Your task to perform on an android device: allow cookies in the chrome app Image 0: 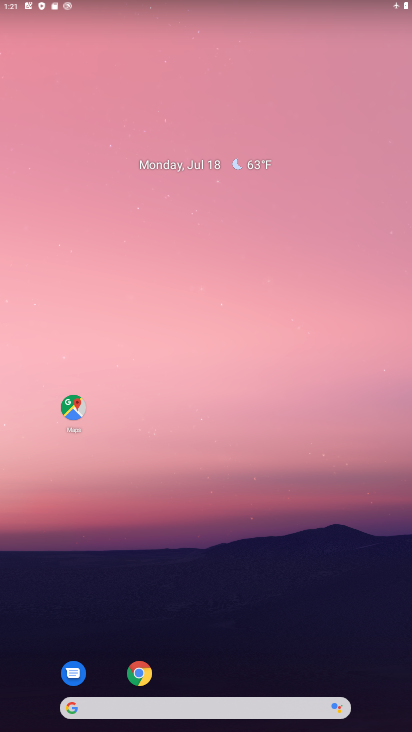
Step 0: drag from (287, 696) to (294, 514)
Your task to perform on an android device: allow cookies in the chrome app Image 1: 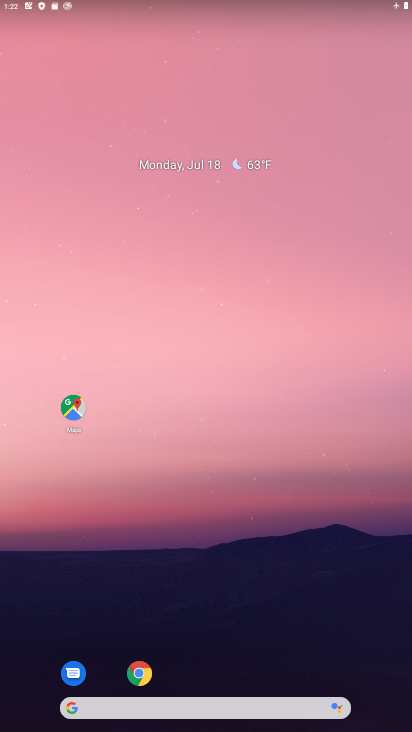
Step 1: drag from (211, 629) to (206, 106)
Your task to perform on an android device: allow cookies in the chrome app Image 2: 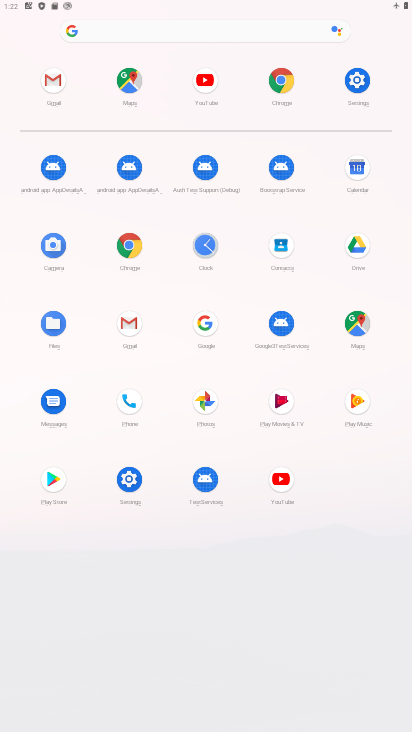
Step 2: click (282, 87)
Your task to perform on an android device: allow cookies in the chrome app Image 3: 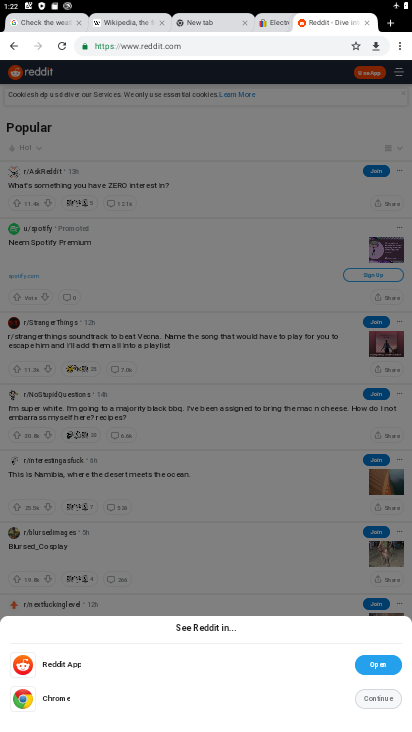
Step 3: click (402, 43)
Your task to perform on an android device: allow cookies in the chrome app Image 4: 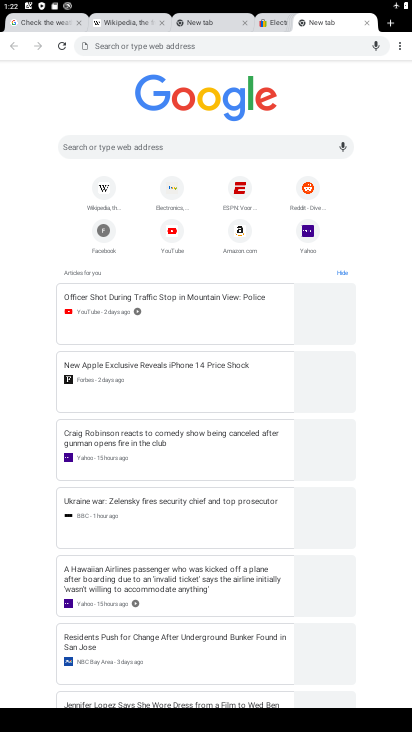
Step 4: click (402, 56)
Your task to perform on an android device: allow cookies in the chrome app Image 5: 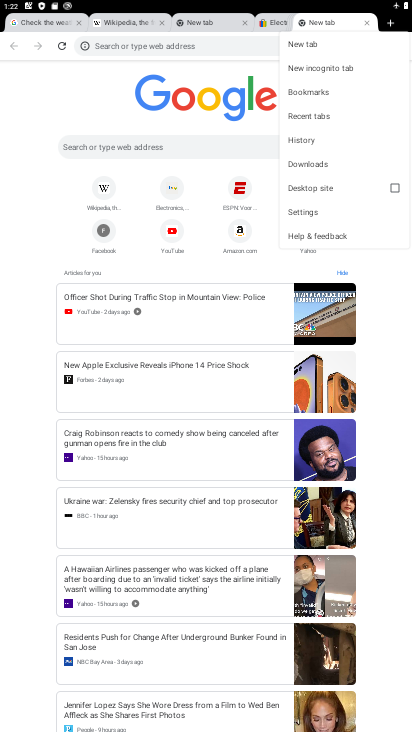
Step 5: click (330, 212)
Your task to perform on an android device: allow cookies in the chrome app Image 6: 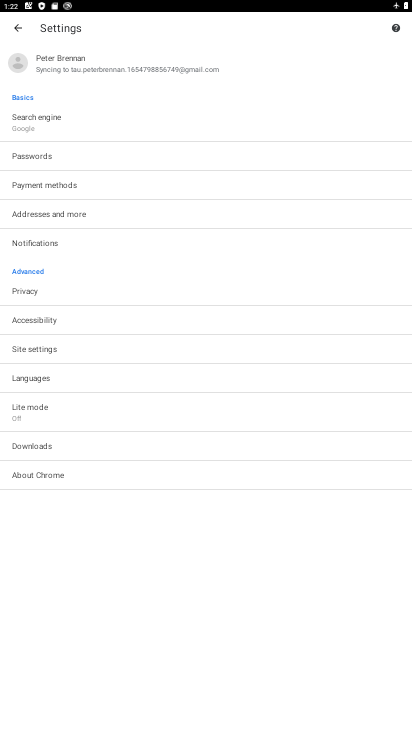
Step 6: click (47, 352)
Your task to perform on an android device: allow cookies in the chrome app Image 7: 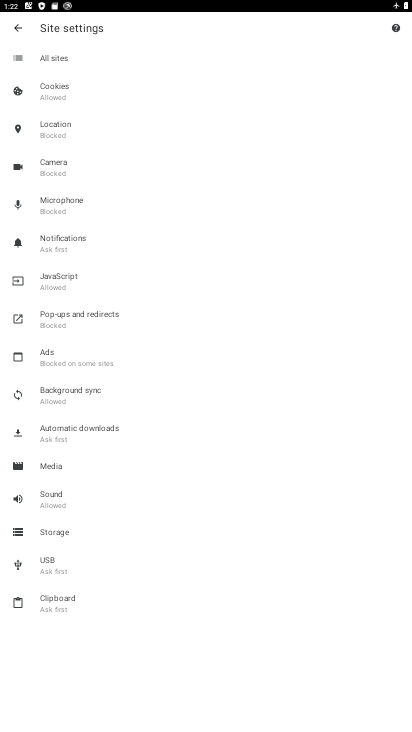
Step 7: click (47, 87)
Your task to perform on an android device: allow cookies in the chrome app Image 8: 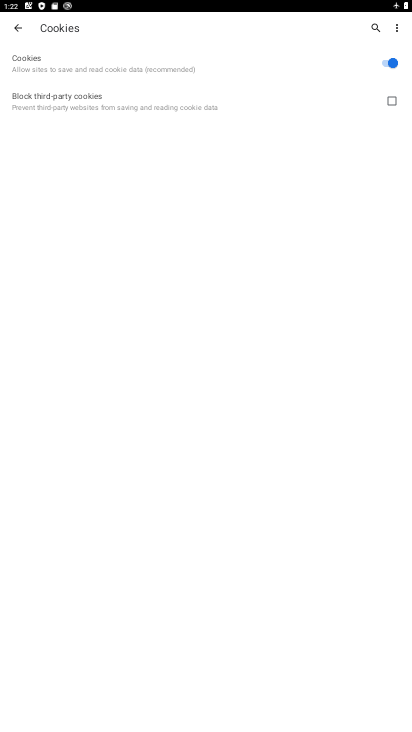
Step 8: task complete